Your task to perform on an android device: Search for Mexican restaurants on Maps Image 0: 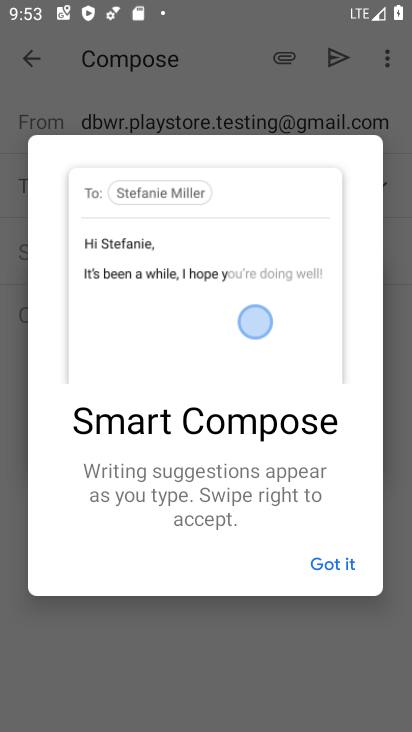
Step 0: press home button
Your task to perform on an android device: Search for Mexican restaurants on Maps Image 1: 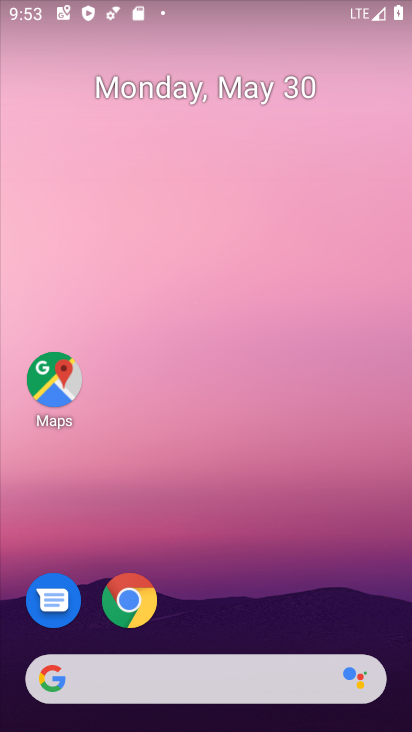
Step 1: click (63, 384)
Your task to perform on an android device: Search for Mexican restaurants on Maps Image 2: 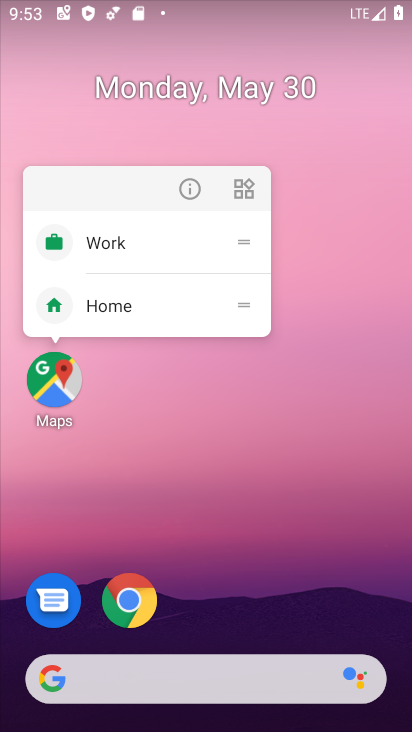
Step 2: click (34, 382)
Your task to perform on an android device: Search for Mexican restaurants on Maps Image 3: 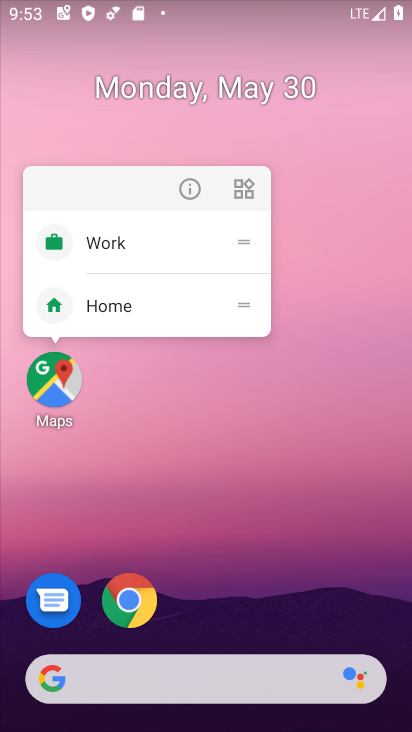
Step 3: click (45, 382)
Your task to perform on an android device: Search for Mexican restaurants on Maps Image 4: 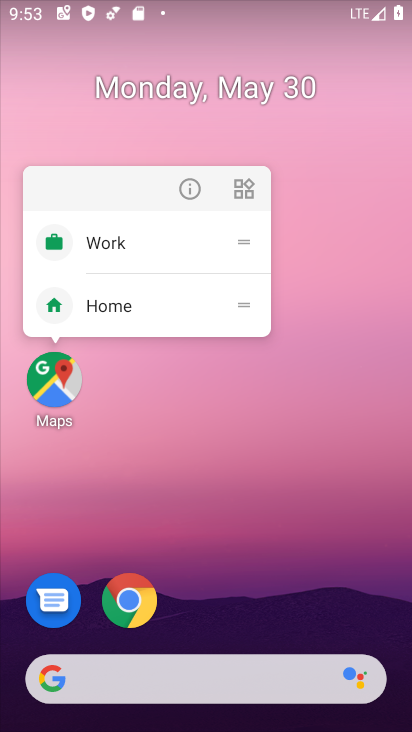
Step 4: click (52, 382)
Your task to perform on an android device: Search for Mexican restaurants on Maps Image 5: 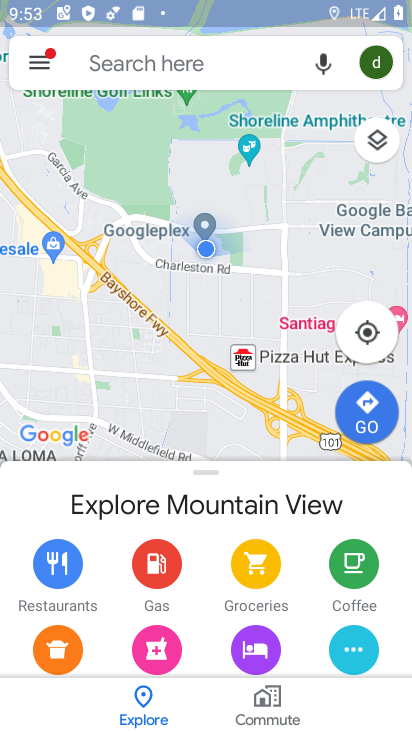
Step 5: type "Mexican restaurants "
Your task to perform on an android device: Search for Mexican restaurants on Maps Image 6: 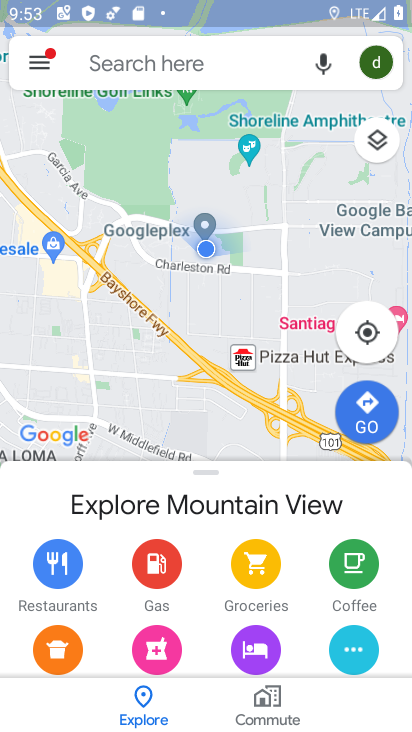
Step 6: click (187, 66)
Your task to perform on an android device: Search for Mexican restaurants on Maps Image 7: 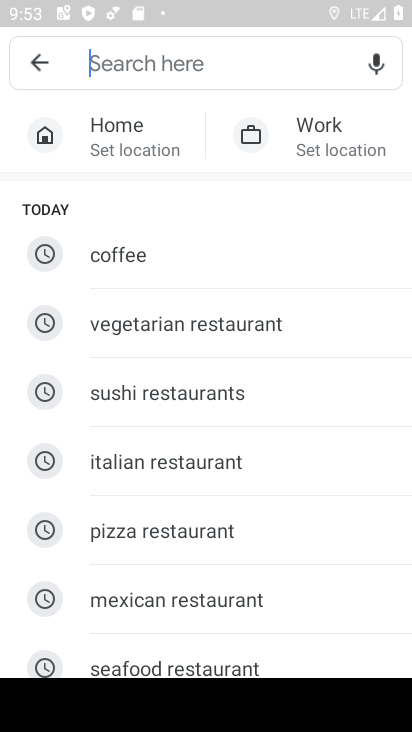
Step 7: click (130, 598)
Your task to perform on an android device: Search for Mexican restaurants on Maps Image 8: 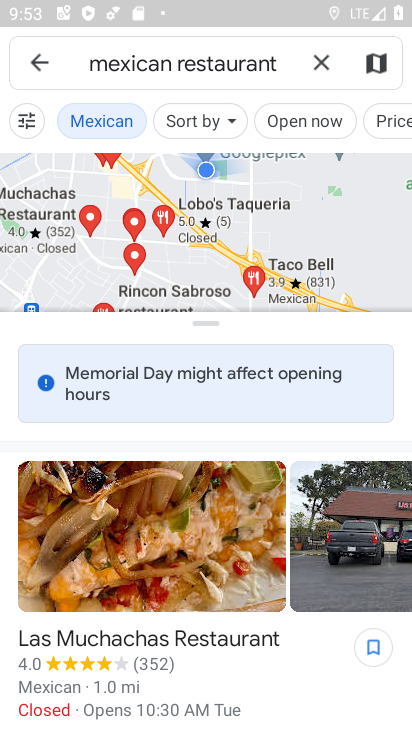
Step 8: task complete